Your task to perform on an android device: stop showing notifications on the lock screen Image 0: 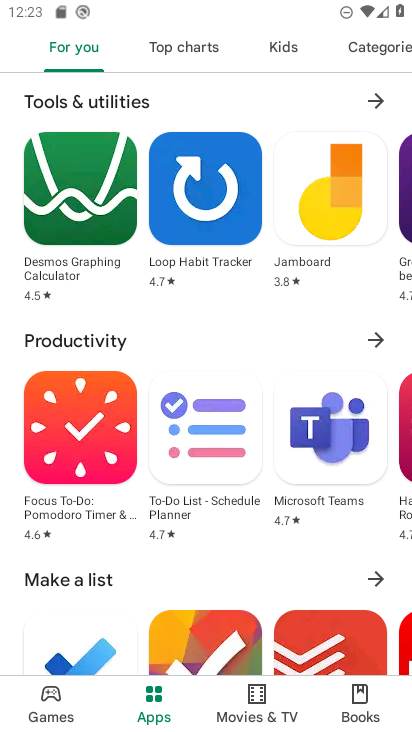
Step 0: press home button
Your task to perform on an android device: stop showing notifications on the lock screen Image 1: 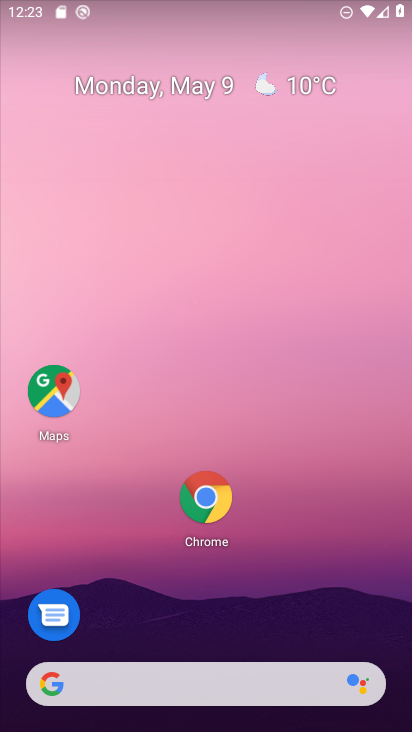
Step 1: drag from (331, 604) to (346, 0)
Your task to perform on an android device: stop showing notifications on the lock screen Image 2: 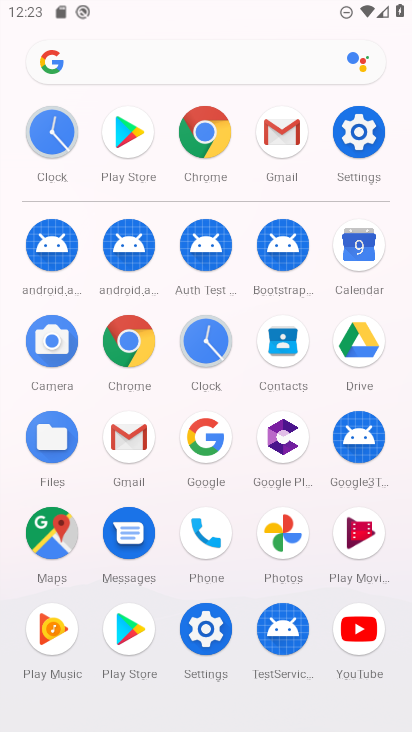
Step 2: click (357, 104)
Your task to perform on an android device: stop showing notifications on the lock screen Image 3: 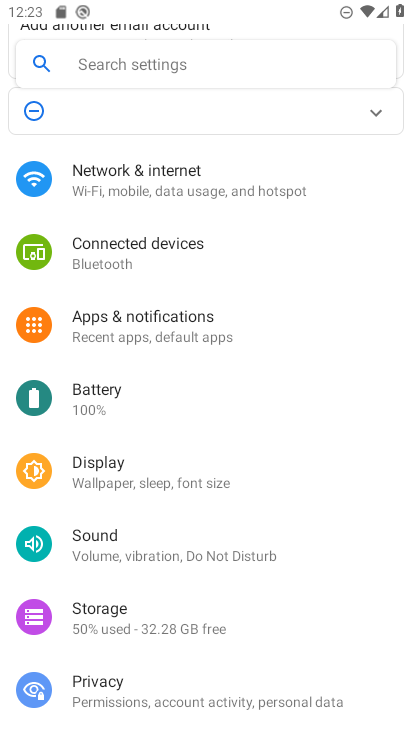
Step 3: drag from (200, 616) to (269, 223)
Your task to perform on an android device: stop showing notifications on the lock screen Image 4: 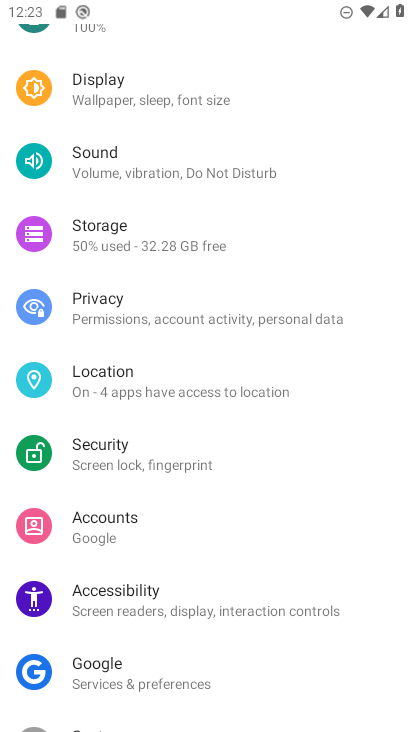
Step 4: drag from (207, 575) to (296, 155)
Your task to perform on an android device: stop showing notifications on the lock screen Image 5: 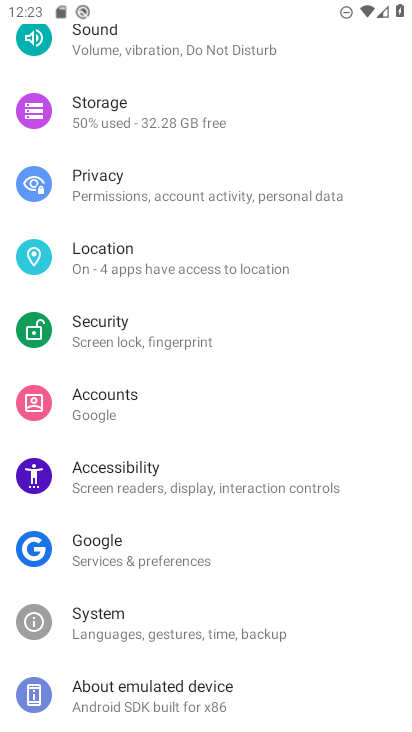
Step 5: drag from (265, 670) to (297, 355)
Your task to perform on an android device: stop showing notifications on the lock screen Image 6: 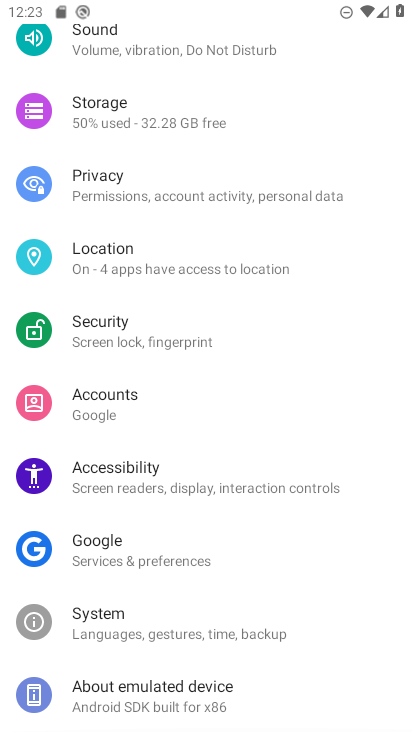
Step 6: drag from (240, 149) to (222, 524)
Your task to perform on an android device: stop showing notifications on the lock screen Image 7: 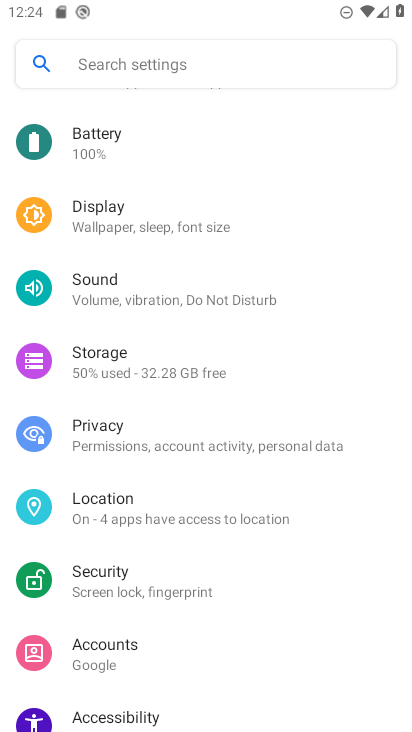
Step 7: drag from (248, 291) to (239, 636)
Your task to perform on an android device: stop showing notifications on the lock screen Image 8: 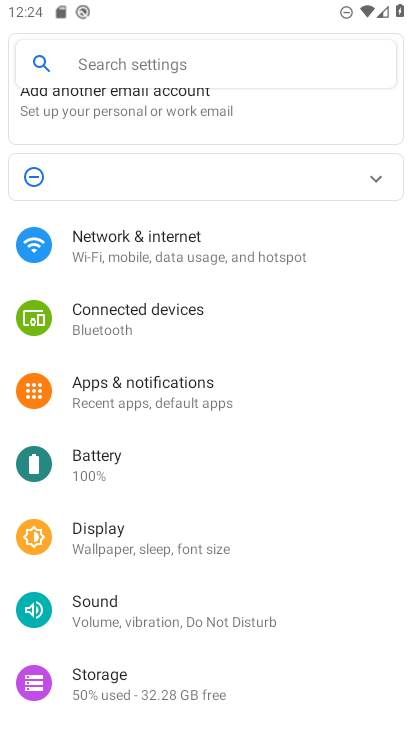
Step 8: click (214, 370)
Your task to perform on an android device: stop showing notifications on the lock screen Image 9: 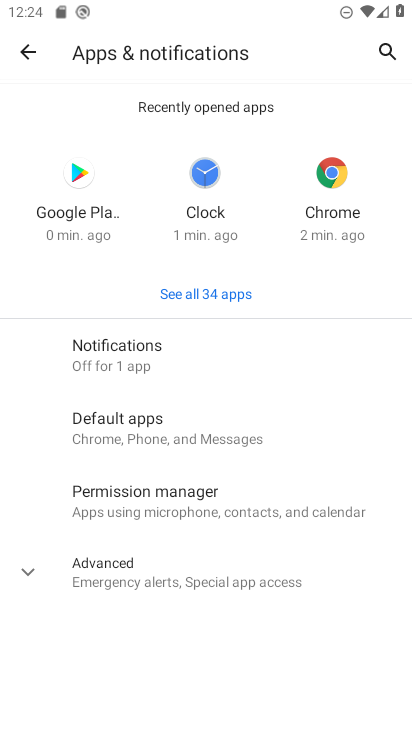
Step 9: click (163, 346)
Your task to perform on an android device: stop showing notifications on the lock screen Image 10: 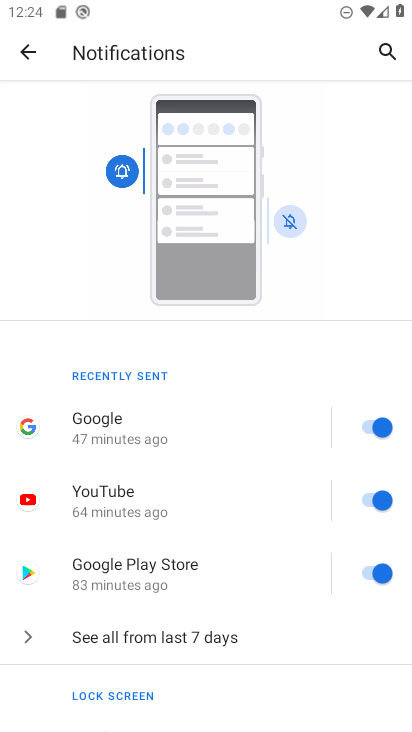
Step 10: drag from (165, 660) to (232, 162)
Your task to perform on an android device: stop showing notifications on the lock screen Image 11: 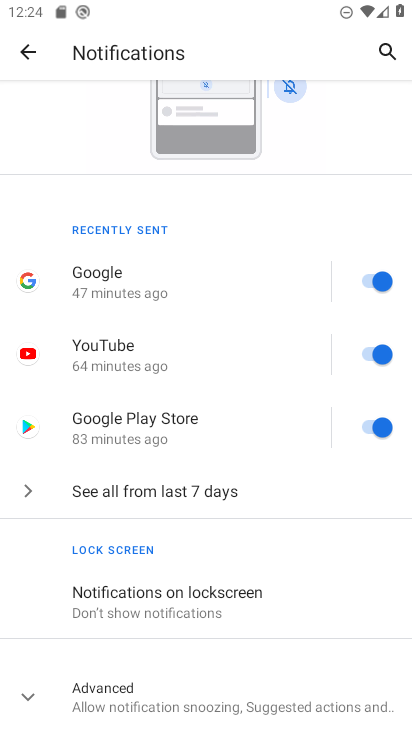
Step 11: click (214, 592)
Your task to perform on an android device: stop showing notifications on the lock screen Image 12: 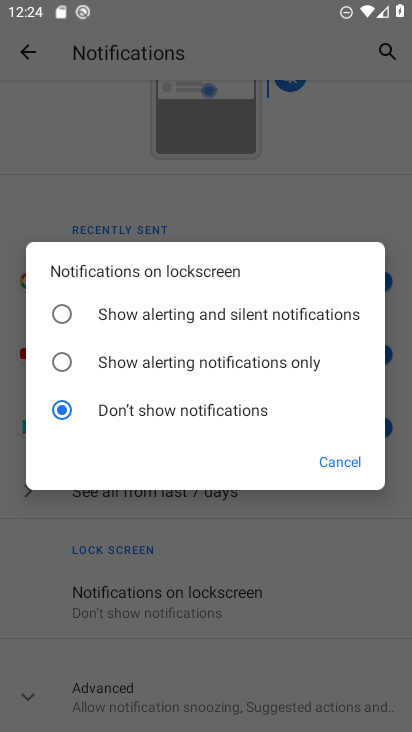
Step 12: task complete